Your task to perform on an android device: Go to network settings Image 0: 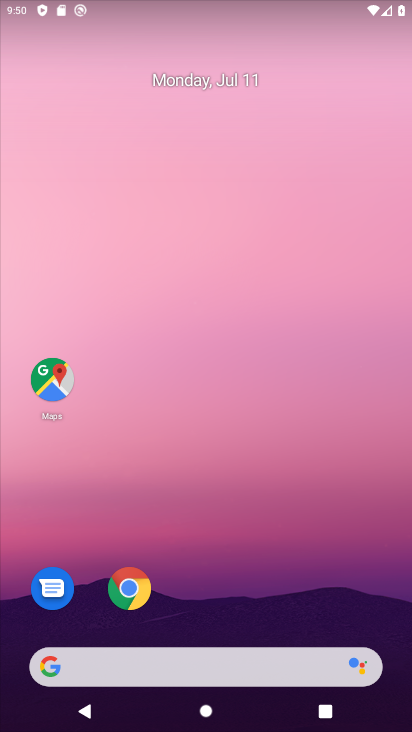
Step 0: drag from (183, 622) to (289, 15)
Your task to perform on an android device: Go to network settings Image 1: 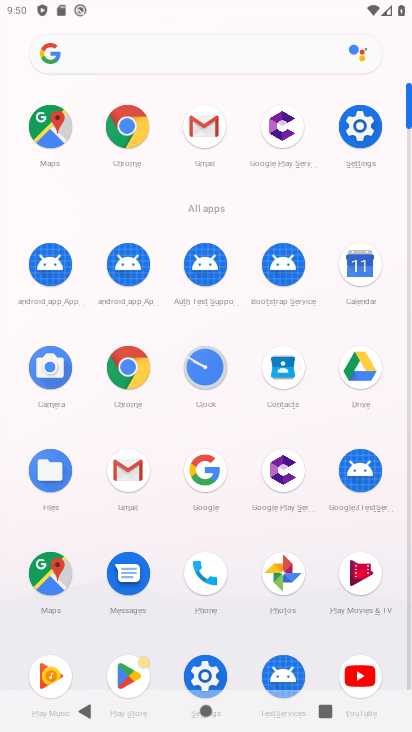
Step 1: click (205, 665)
Your task to perform on an android device: Go to network settings Image 2: 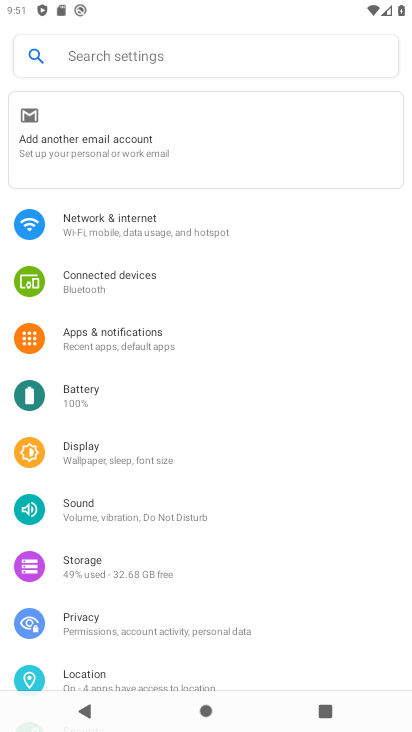
Step 2: click (159, 235)
Your task to perform on an android device: Go to network settings Image 3: 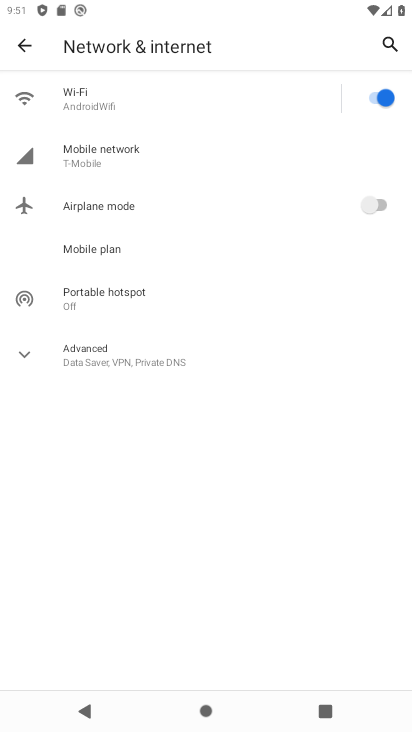
Step 3: task complete